Your task to perform on an android device: Open Google Maps Image 0: 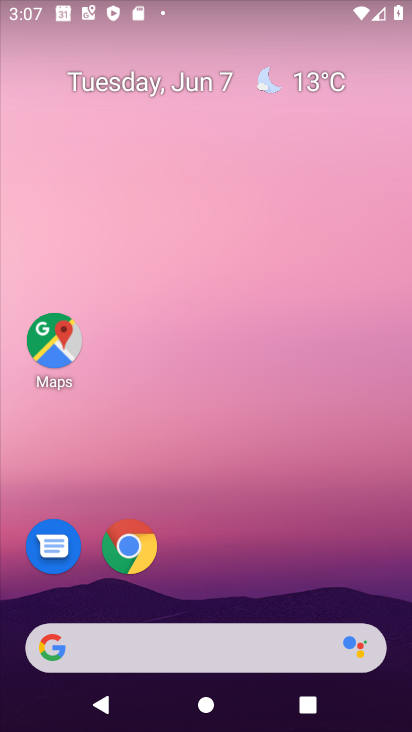
Step 0: click (61, 335)
Your task to perform on an android device: Open Google Maps Image 1: 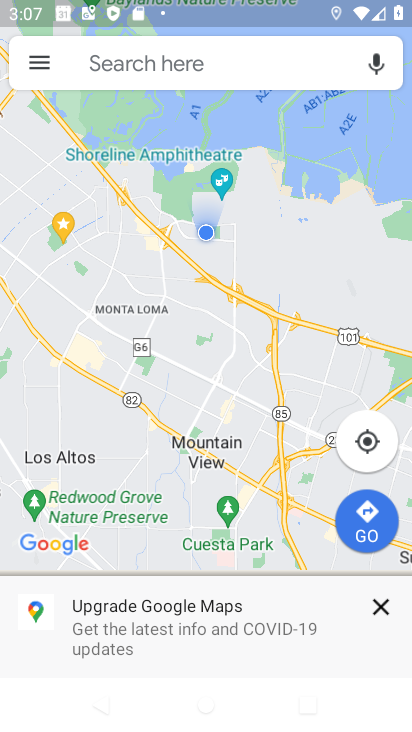
Step 1: task complete